Your task to perform on an android device: Open Google Maps Image 0: 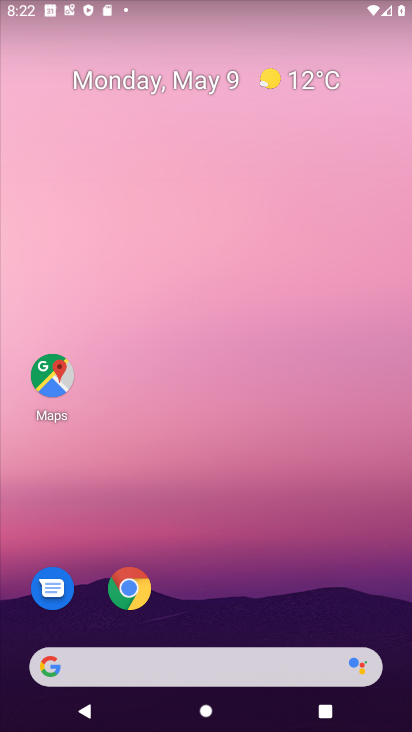
Step 0: press home button
Your task to perform on an android device: Open Google Maps Image 1: 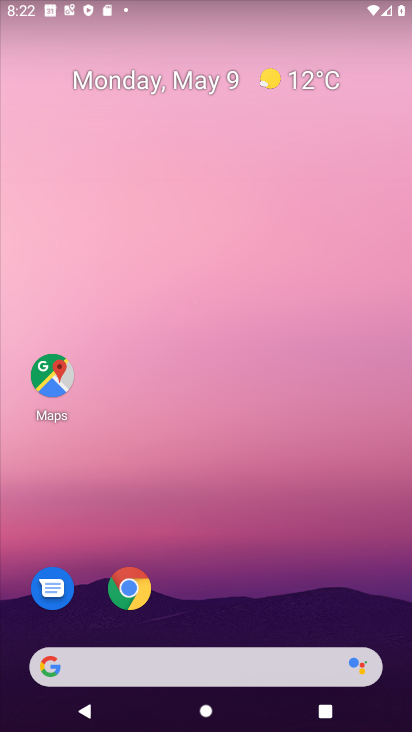
Step 1: click (46, 381)
Your task to perform on an android device: Open Google Maps Image 2: 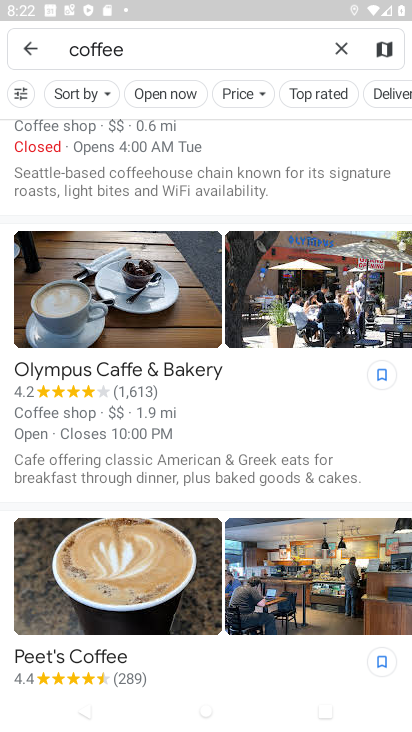
Step 2: click (27, 49)
Your task to perform on an android device: Open Google Maps Image 3: 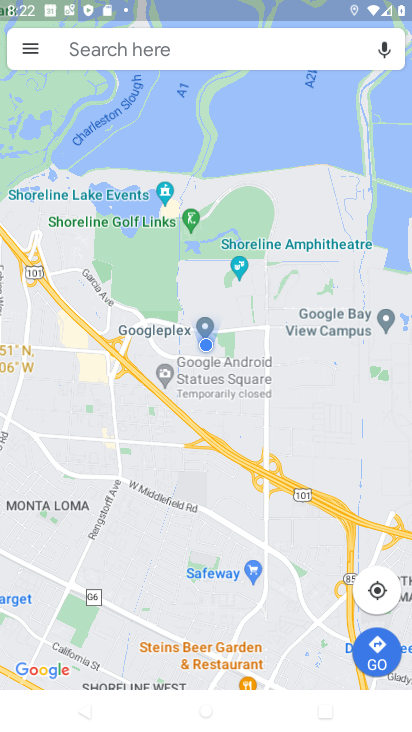
Step 3: task complete